Your task to perform on an android device: set the timer Image 0: 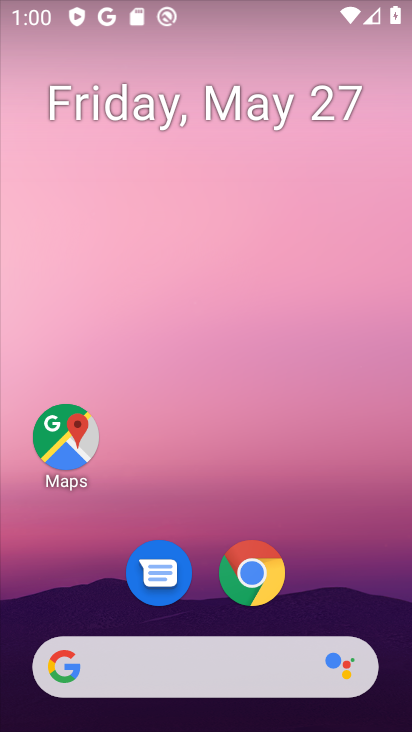
Step 0: drag from (227, 626) to (189, 71)
Your task to perform on an android device: set the timer Image 1: 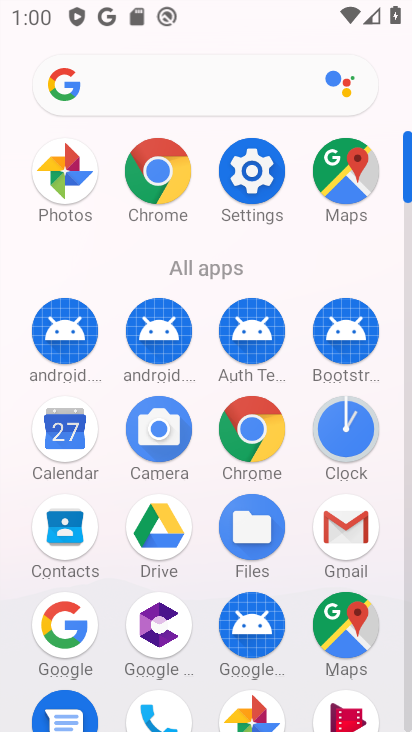
Step 1: click (357, 437)
Your task to perform on an android device: set the timer Image 2: 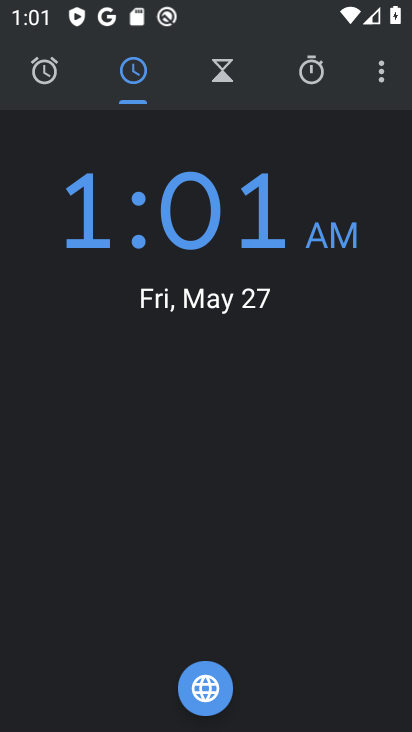
Step 2: click (229, 76)
Your task to perform on an android device: set the timer Image 3: 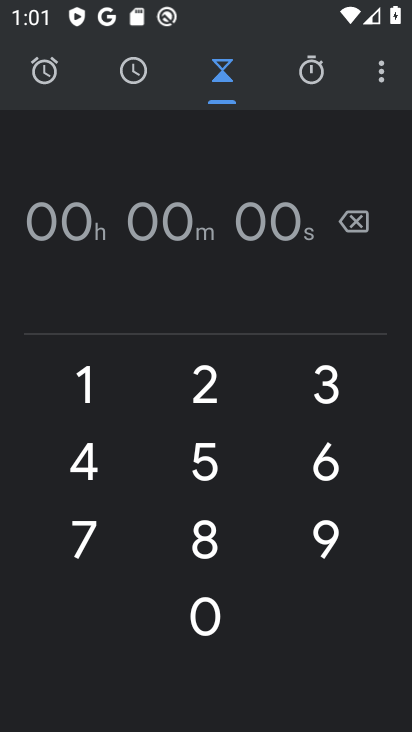
Step 3: click (210, 383)
Your task to perform on an android device: set the timer Image 4: 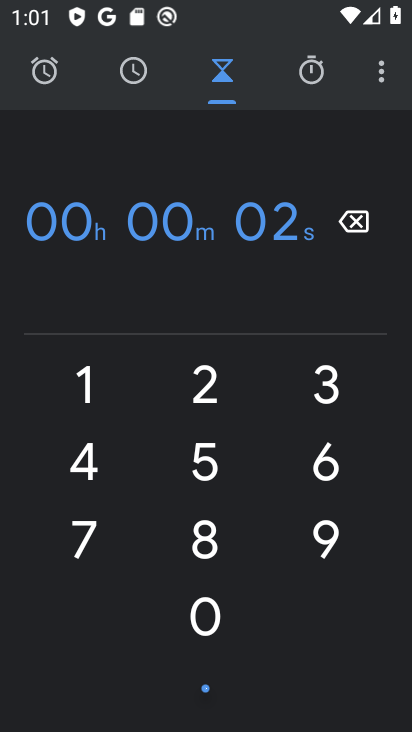
Step 4: click (212, 446)
Your task to perform on an android device: set the timer Image 5: 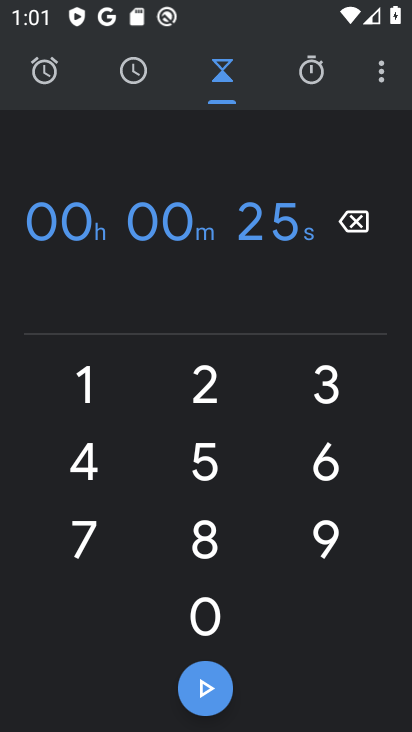
Step 5: task complete